Your task to perform on an android device: turn on the 12-hour format for clock Image 0: 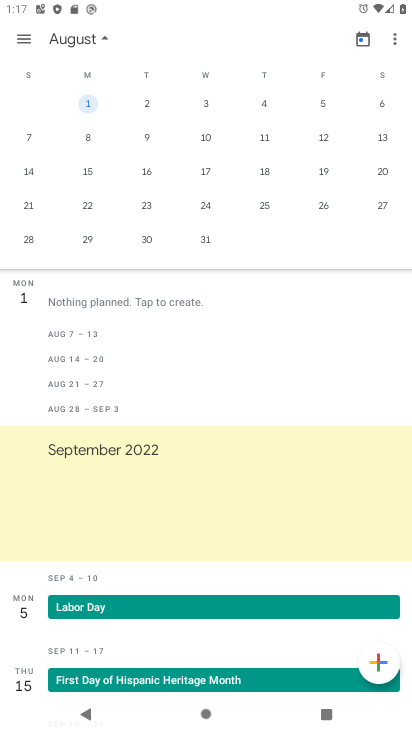
Step 0: press home button
Your task to perform on an android device: turn on the 12-hour format for clock Image 1: 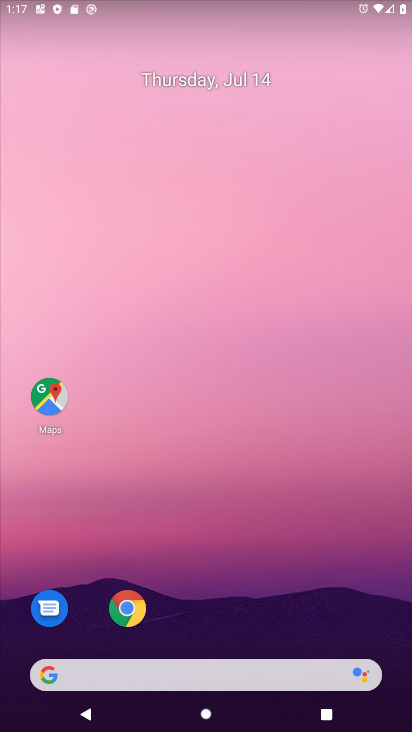
Step 1: drag from (264, 610) to (148, 52)
Your task to perform on an android device: turn on the 12-hour format for clock Image 2: 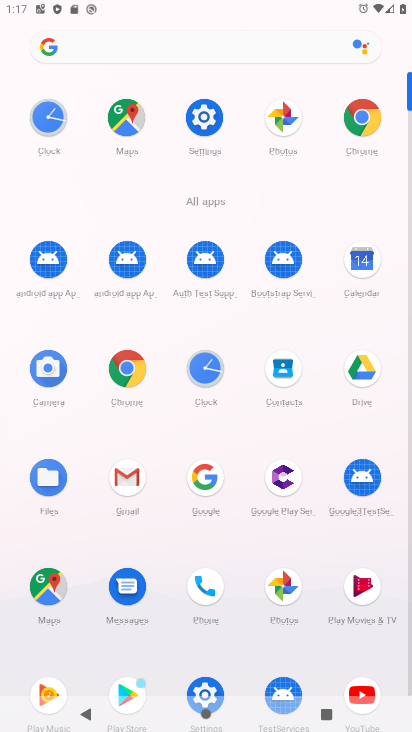
Step 2: click (204, 366)
Your task to perform on an android device: turn on the 12-hour format for clock Image 3: 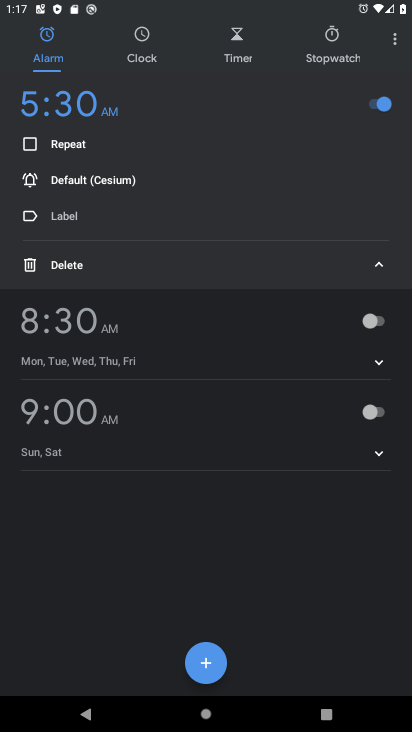
Step 3: click (390, 46)
Your task to perform on an android device: turn on the 12-hour format for clock Image 4: 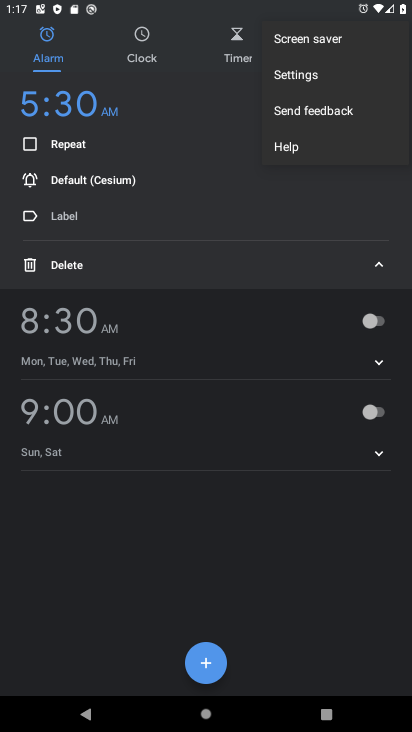
Step 4: click (323, 93)
Your task to perform on an android device: turn on the 12-hour format for clock Image 5: 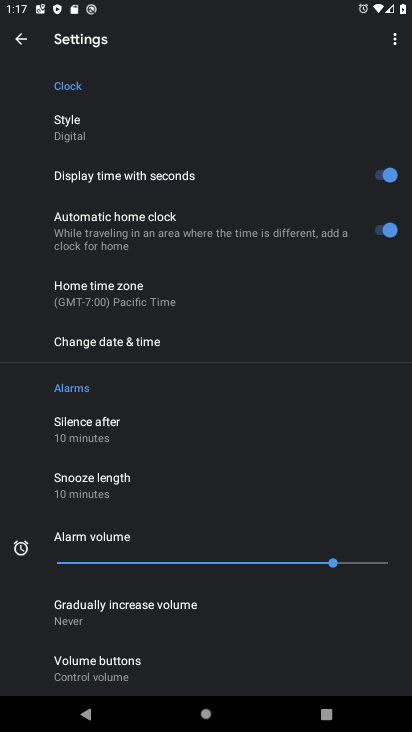
Step 5: click (95, 333)
Your task to perform on an android device: turn on the 12-hour format for clock Image 6: 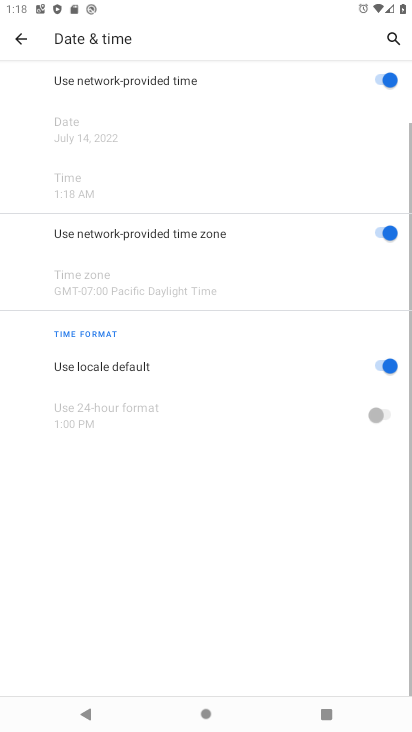
Step 6: click (198, 368)
Your task to perform on an android device: turn on the 12-hour format for clock Image 7: 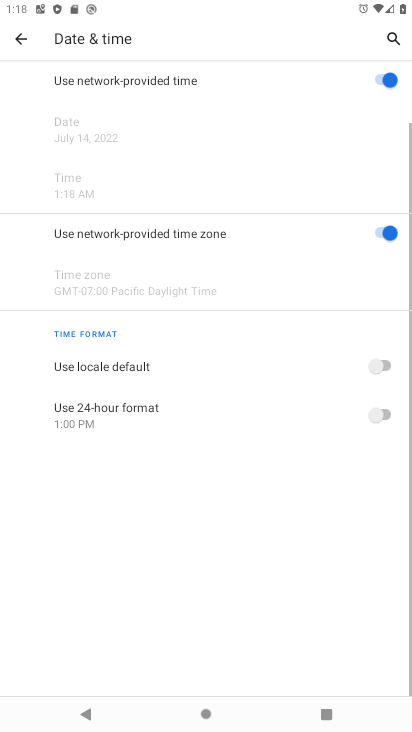
Step 7: click (204, 418)
Your task to perform on an android device: turn on the 12-hour format for clock Image 8: 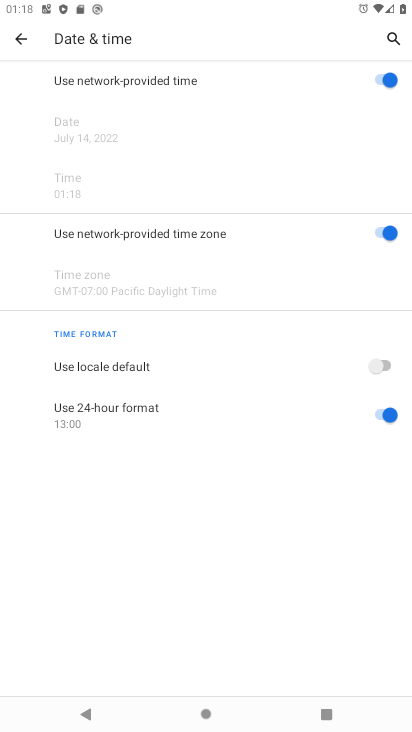
Step 8: task complete